Your task to perform on an android device: turn off location history Image 0: 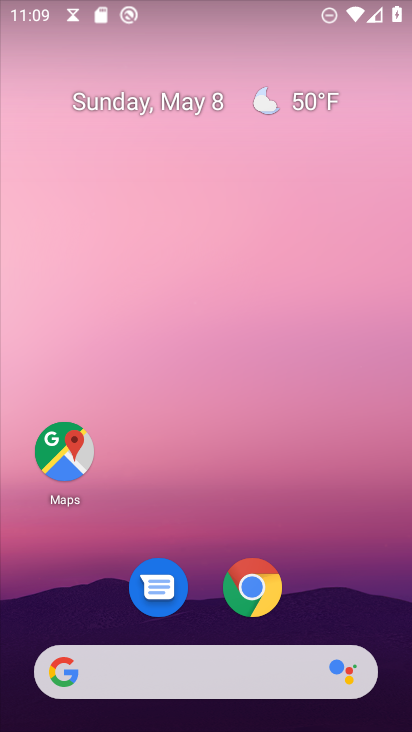
Step 0: drag from (253, 343) to (180, 83)
Your task to perform on an android device: turn off location history Image 1: 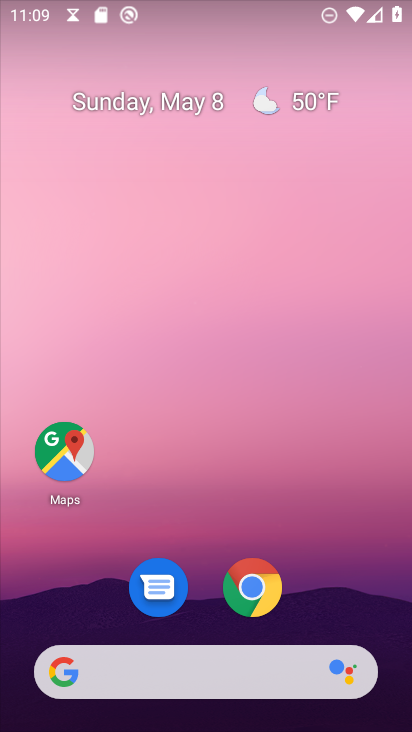
Step 1: drag from (349, 584) to (297, 128)
Your task to perform on an android device: turn off location history Image 2: 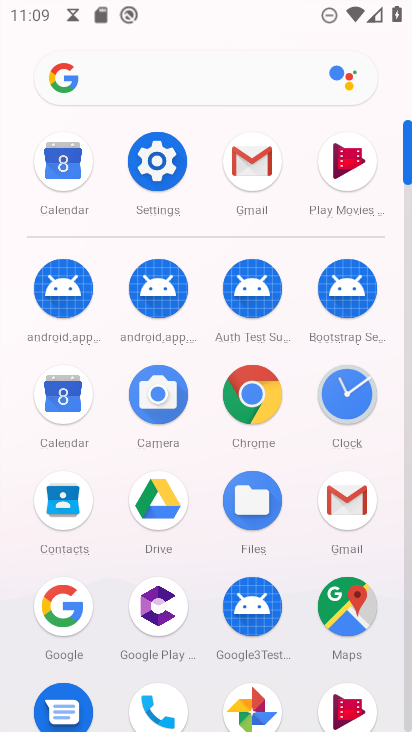
Step 2: click (167, 158)
Your task to perform on an android device: turn off location history Image 3: 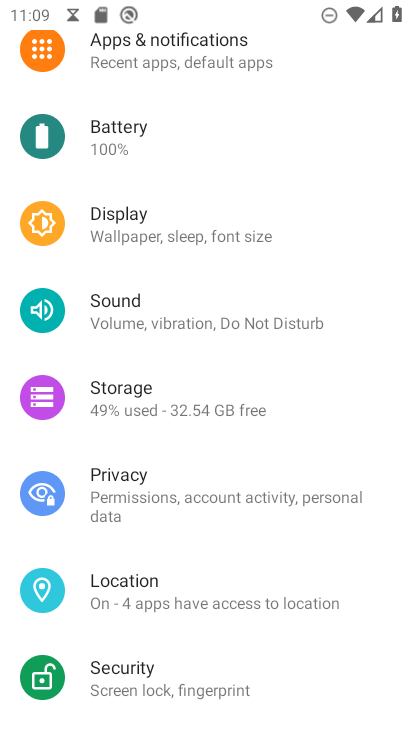
Step 3: click (176, 586)
Your task to perform on an android device: turn off location history Image 4: 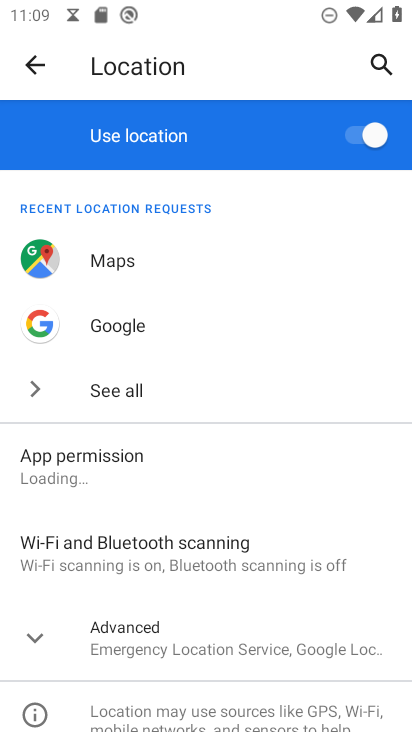
Step 4: click (206, 640)
Your task to perform on an android device: turn off location history Image 5: 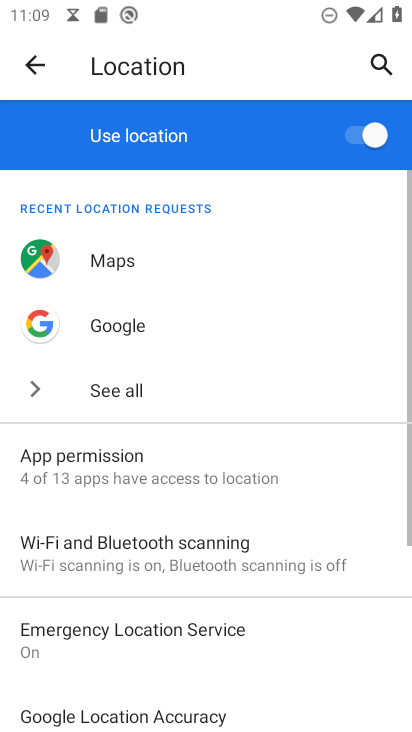
Step 5: drag from (234, 680) to (232, 276)
Your task to perform on an android device: turn off location history Image 6: 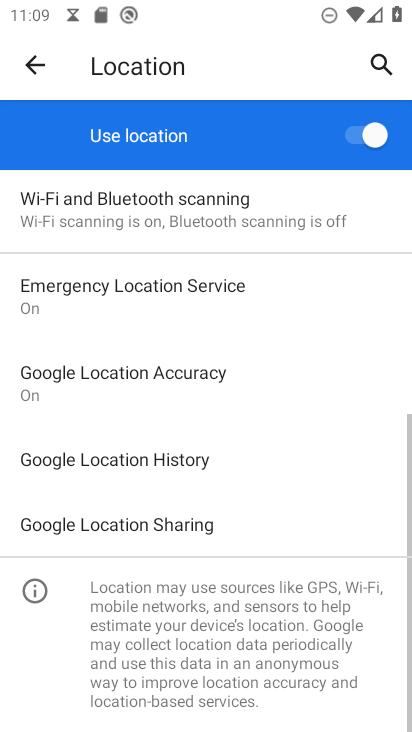
Step 6: click (124, 458)
Your task to perform on an android device: turn off location history Image 7: 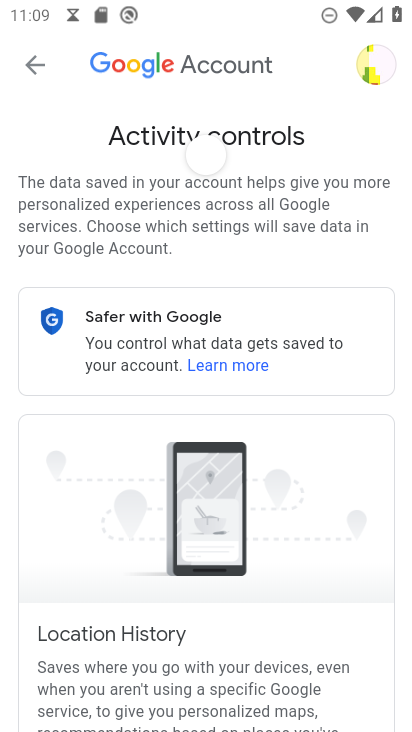
Step 7: drag from (241, 638) to (273, 263)
Your task to perform on an android device: turn off location history Image 8: 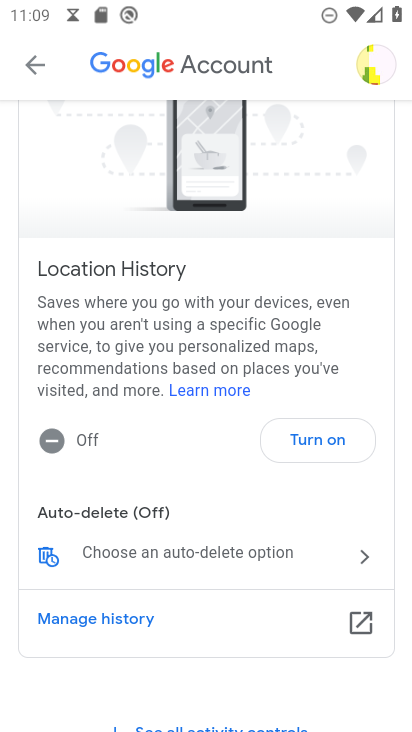
Step 8: click (298, 434)
Your task to perform on an android device: turn off location history Image 9: 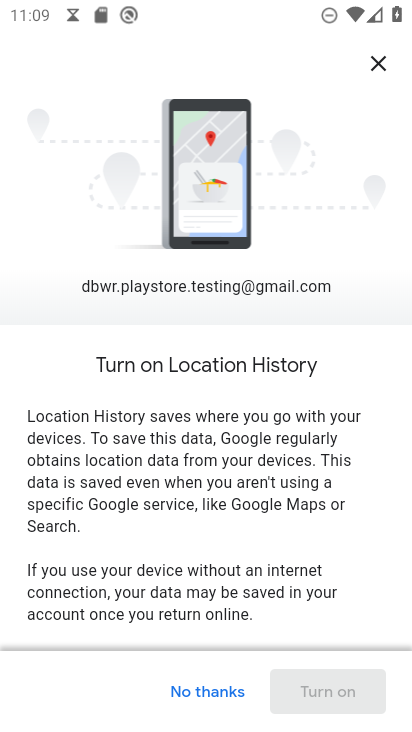
Step 9: drag from (301, 600) to (303, 176)
Your task to perform on an android device: turn off location history Image 10: 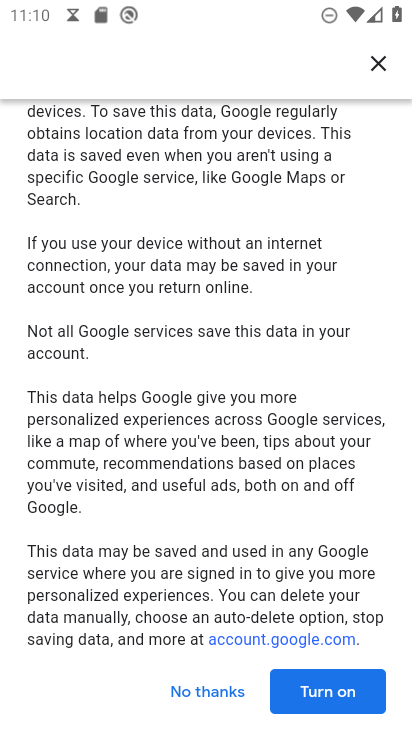
Step 10: drag from (216, 189) to (204, 618)
Your task to perform on an android device: turn off location history Image 11: 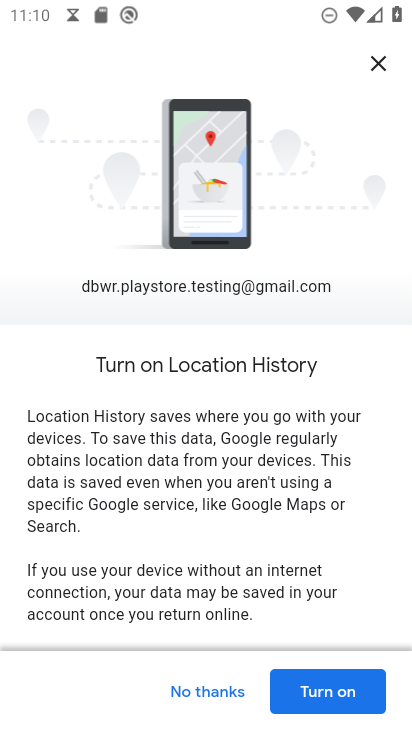
Step 11: click (189, 692)
Your task to perform on an android device: turn off location history Image 12: 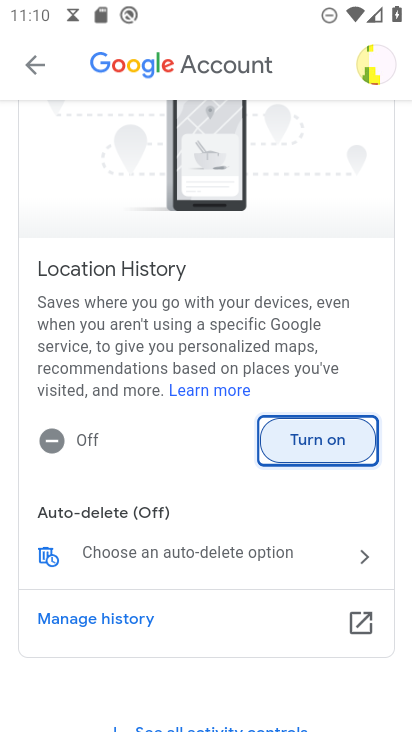
Step 12: task complete